Your task to perform on an android device: toggle notifications settings in the gmail app Image 0: 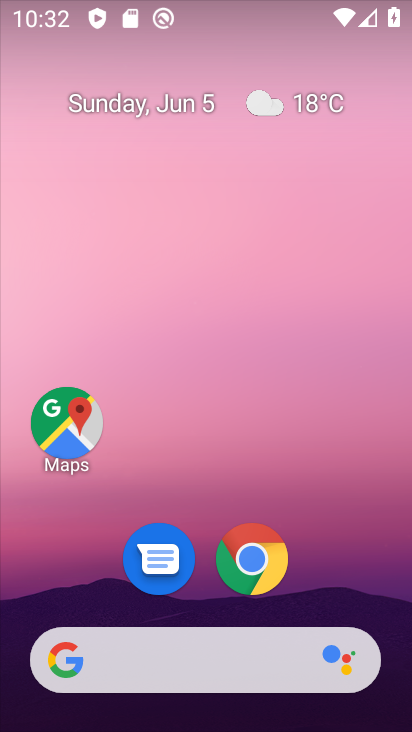
Step 0: drag from (358, 590) to (216, 228)
Your task to perform on an android device: toggle notifications settings in the gmail app Image 1: 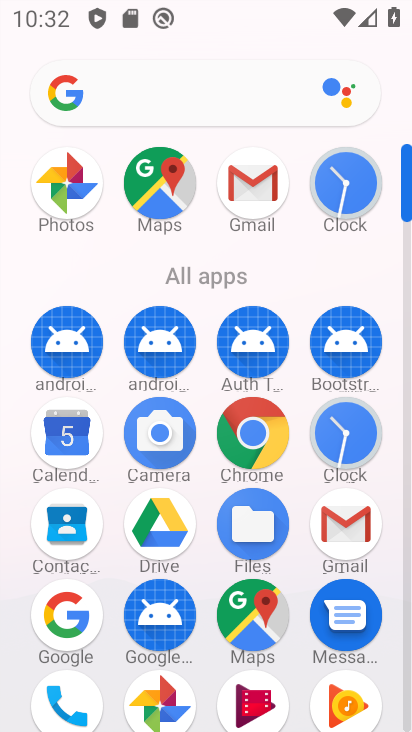
Step 1: click (249, 197)
Your task to perform on an android device: toggle notifications settings in the gmail app Image 2: 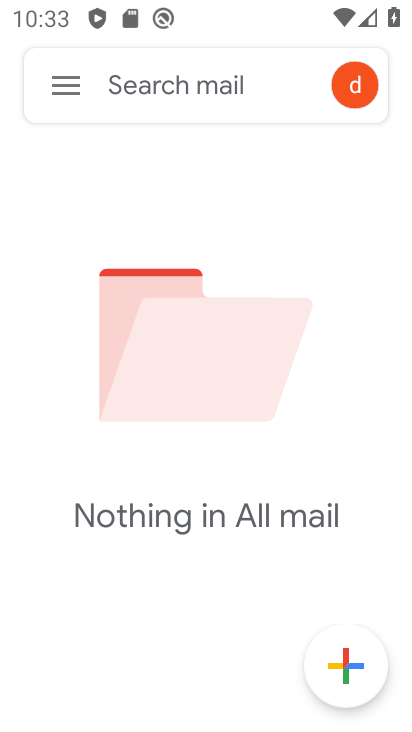
Step 2: click (56, 95)
Your task to perform on an android device: toggle notifications settings in the gmail app Image 3: 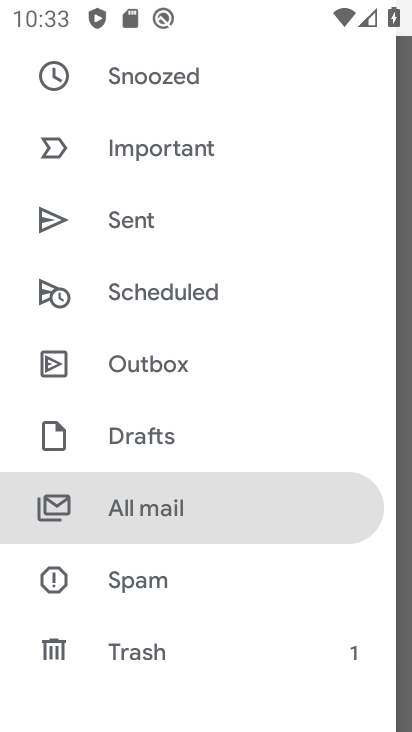
Step 3: drag from (140, 624) to (150, 311)
Your task to perform on an android device: toggle notifications settings in the gmail app Image 4: 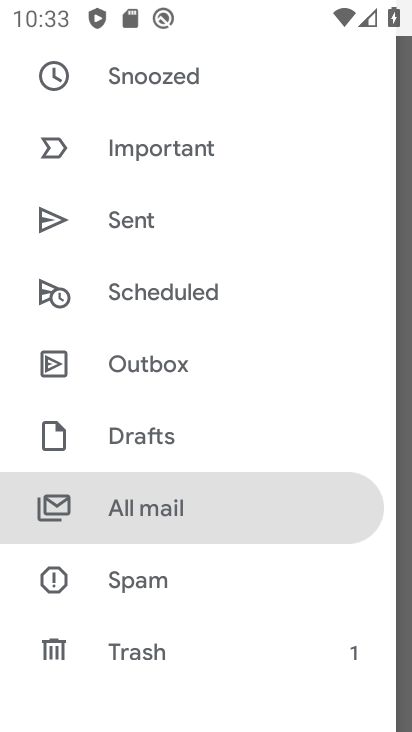
Step 4: drag from (163, 622) to (148, 414)
Your task to perform on an android device: toggle notifications settings in the gmail app Image 5: 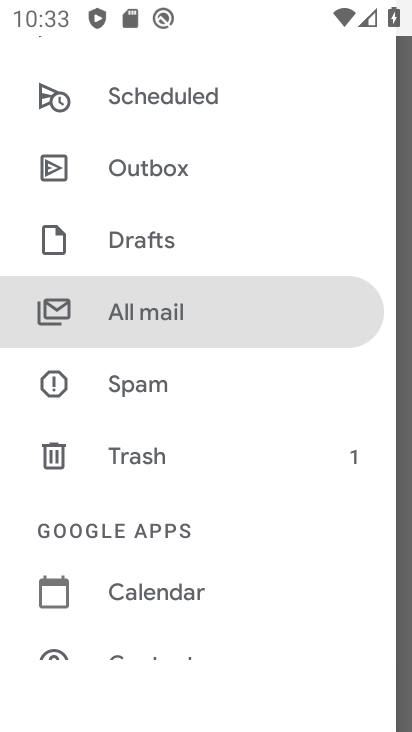
Step 5: drag from (147, 540) to (126, 106)
Your task to perform on an android device: toggle notifications settings in the gmail app Image 6: 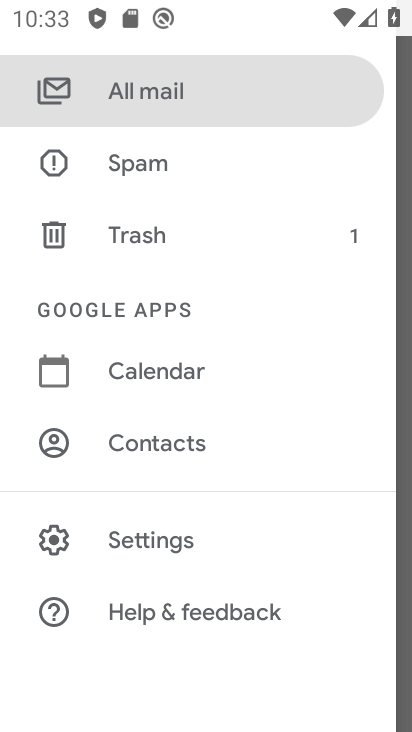
Step 6: click (189, 538)
Your task to perform on an android device: toggle notifications settings in the gmail app Image 7: 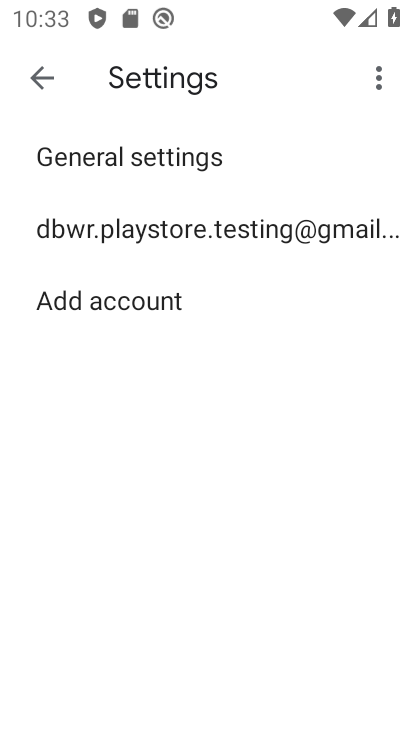
Step 7: click (208, 225)
Your task to perform on an android device: toggle notifications settings in the gmail app Image 8: 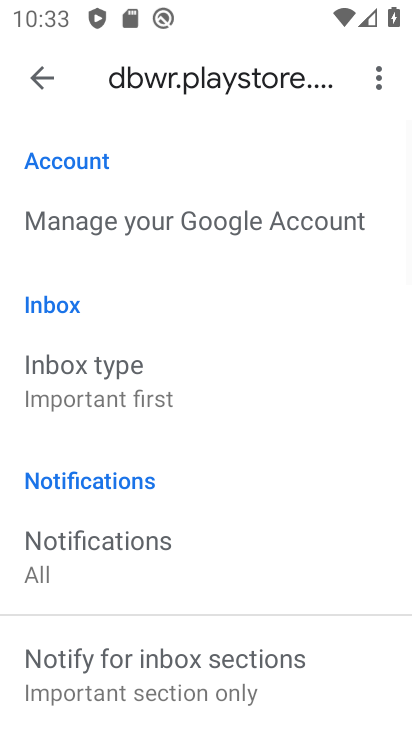
Step 8: drag from (199, 578) to (199, 261)
Your task to perform on an android device: toggle notifications settings in the gmail app Image 9: 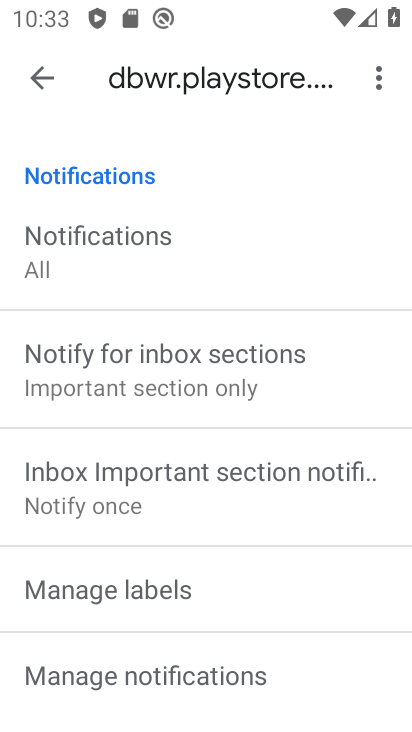
Step 9: drag from (222, 625) to (194, 395)
Your task to perform on an android device: toggle notifications settings in the gmail app Image 10: 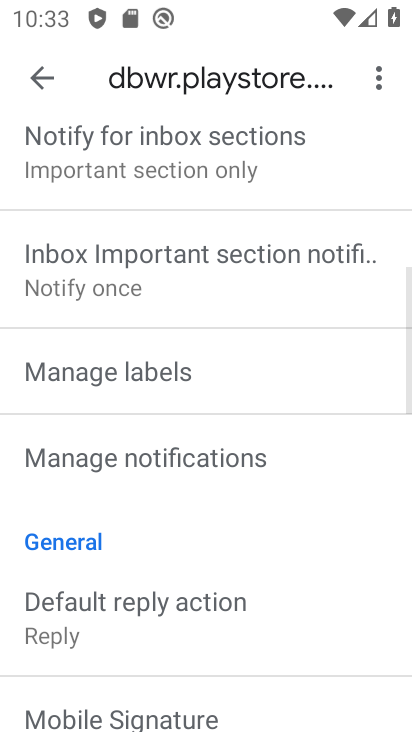
Step 10: click (199, 439)
Your task to perform on an android device: toggle notifications settings in the gmail app Image 11: 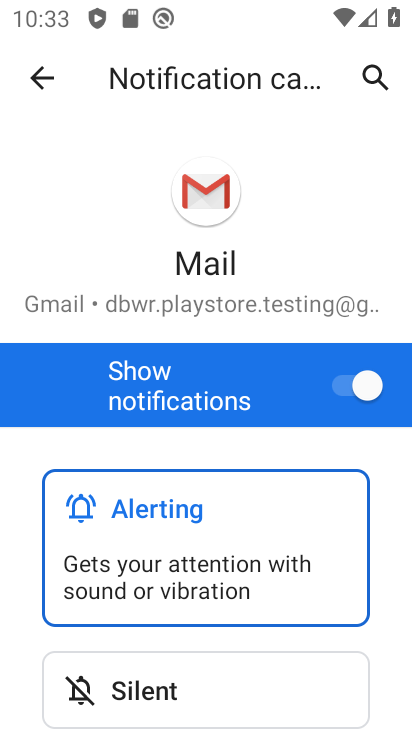
Step 11: drag from (387, 590) to (304, 208)
Your task to perform on an android device: toggle notifications settings in the gmail app Image 12: 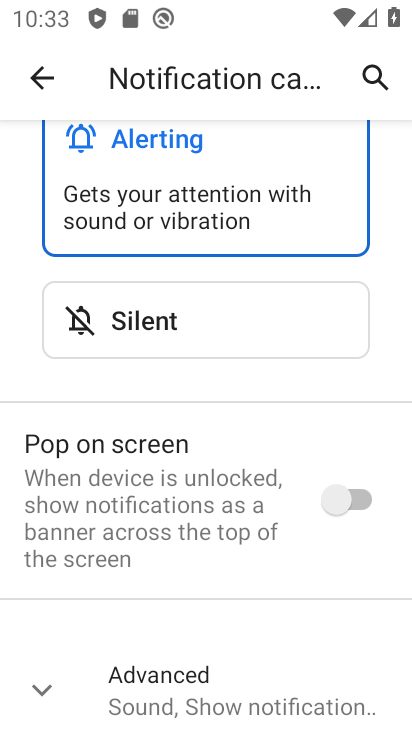
Step 12: click (225, 310)
Your task to perform on an android device: toggle notifications settings in the gmail app Image 13: 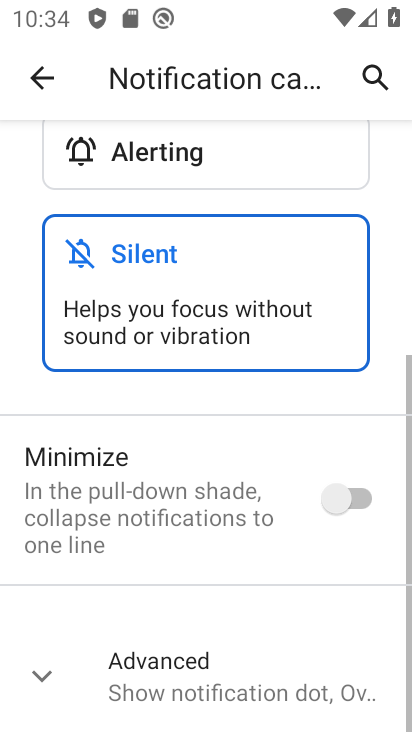
Step 13: click (336, 504)
Your task to perform on an android device: toggle notifications settings in the gmail app Image 14: 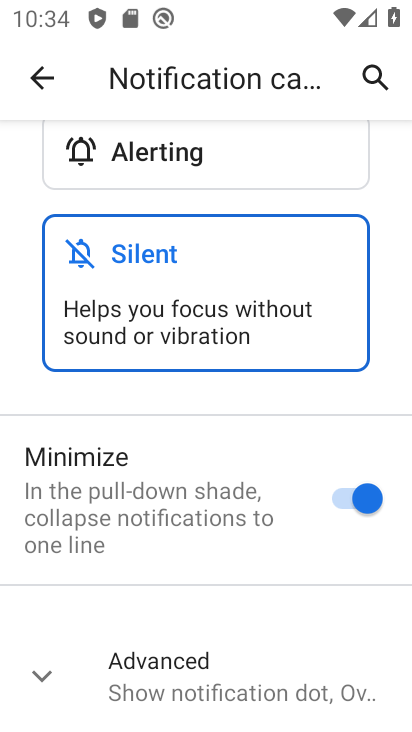
Step 14: task complete